Your task to perform on an android device: Check the weather Image 0: 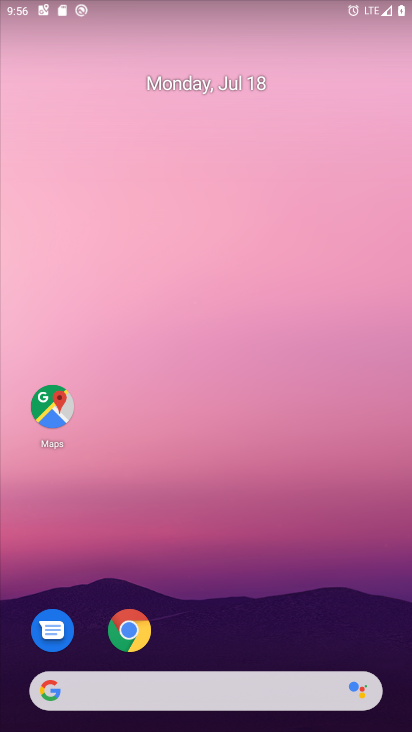
Step 0: click (216, 628)
Your task to perform on an android device: Check the weather Image 1: 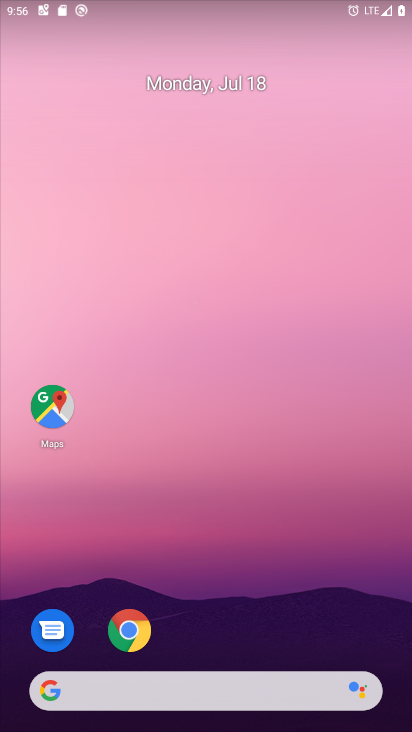
Step 1: drag from (218, 624) to (220, 139)
Your task to perform on an android device: Check the weather Image 2: 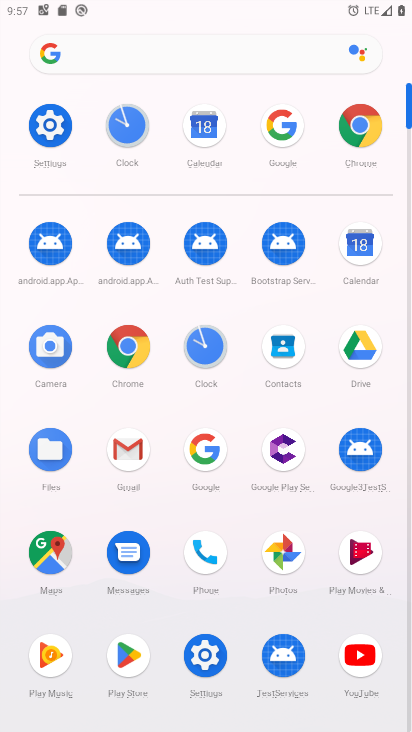
Step 2: click (205, 456)
Your task to perform on an android device: Check the weather Image 3: 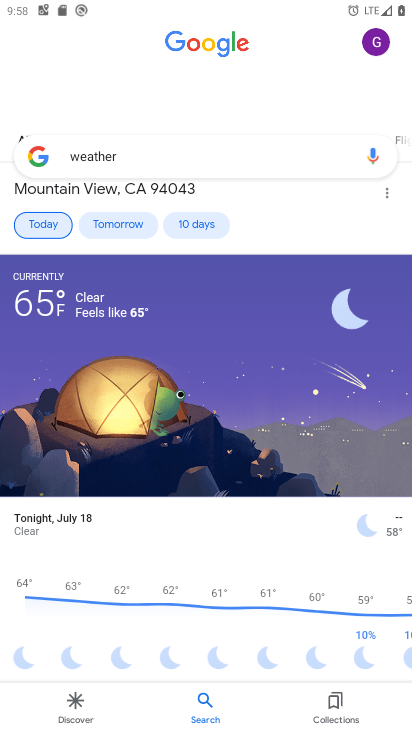
Step 3: task complete